Your task to perform on an android device: Open Google Chrome Image 0: 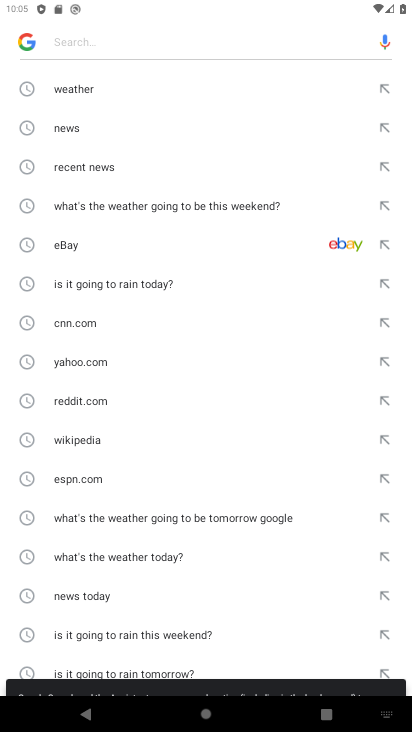
Step 0: press back button
Your task to perform on an android device: Open Google Chrome Image 1: 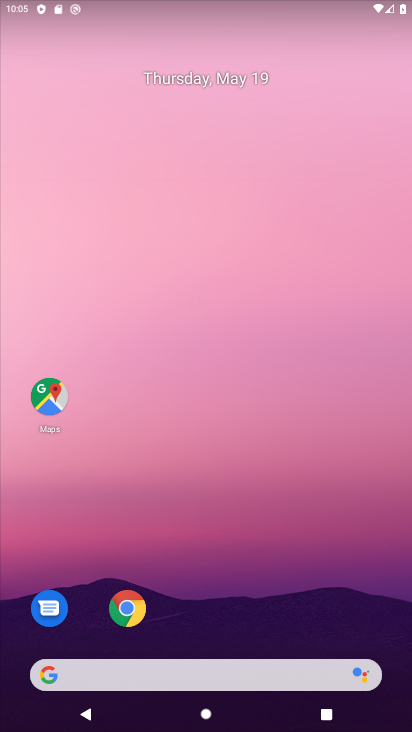
Step 1: click (137, 606)
Your task to perform on an android device: Open Google Chrome Image 2: 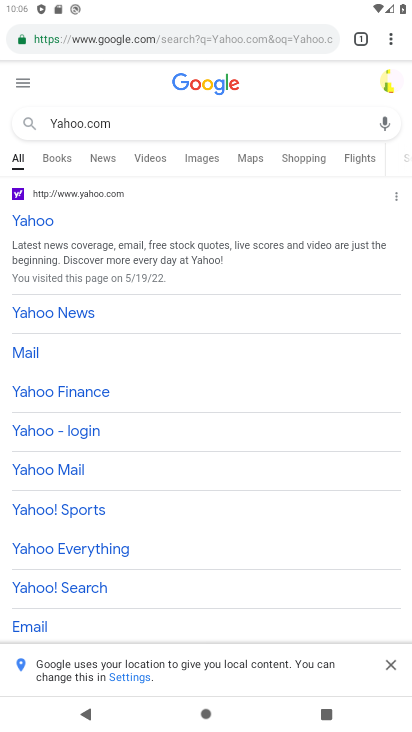
Step 2: task complete